Your task to perform on an android device: turn on the 24-hour format for clock Image 0: 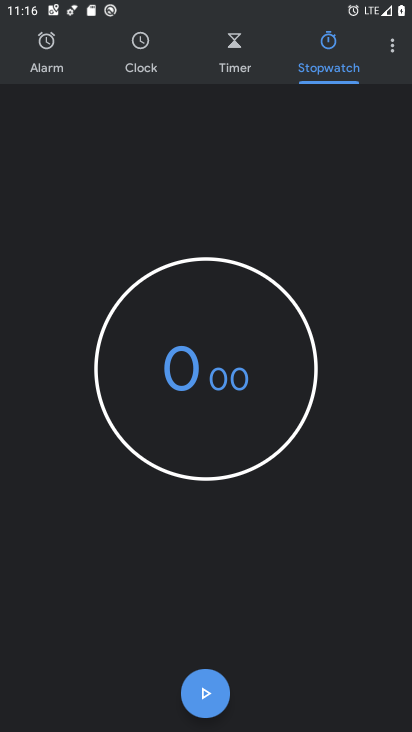
Step 0: drag from (214, 516) to (257, 205)
Your task to perform on an android device: turn on the 24-hour format for clock Image 1: 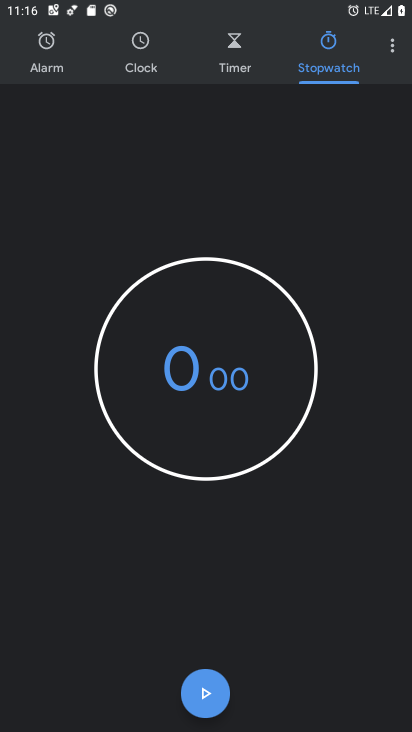
Step 1: click (386, 48)
Your task to perform on an android device: turn on the 24-hour format for clock Image 2: 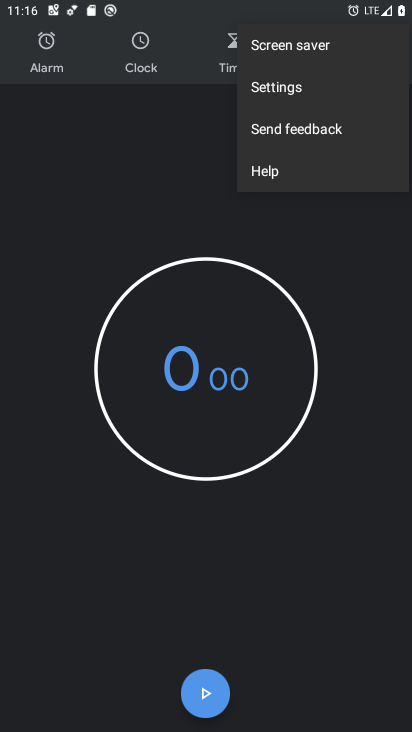
Step 2: click (287, 85)
Your task to perform on an android device: turn on the 24-hour format for clock Image 3: 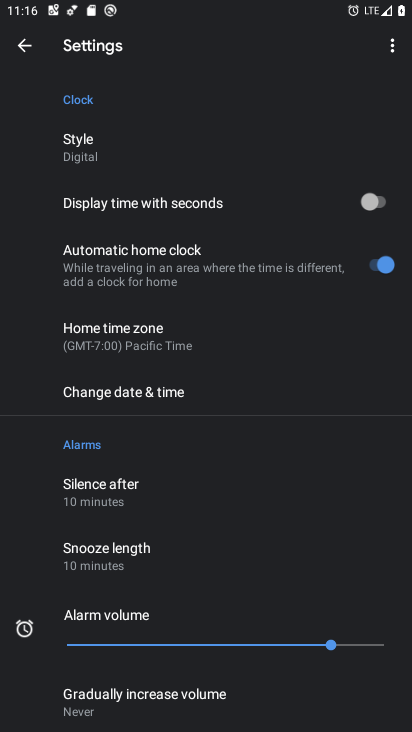
Step 3: click (147, 392)
Your task to perform on an android device: turn on the 24-hour format for clock Image 4: 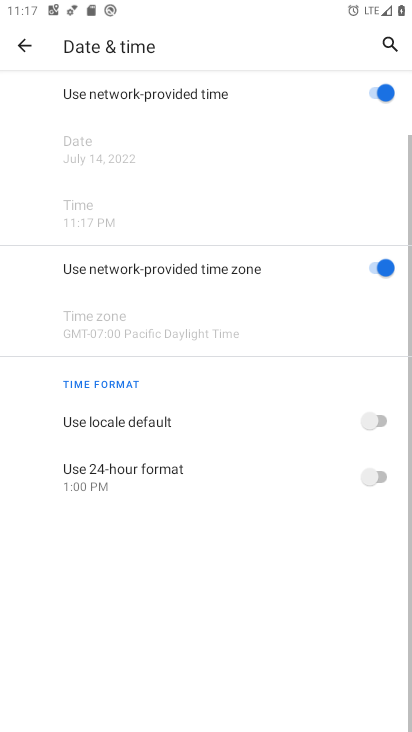
Step 4: click (351, 482)
Your task to perform on an android device: turn on the 24-hour format for clock Image 5: 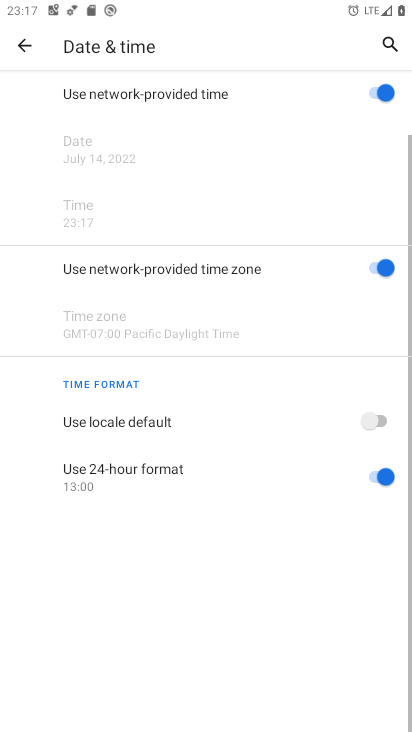
Step 5: task complete